Your task to perform on an android device: set default search engine in the chrome app Image 0: 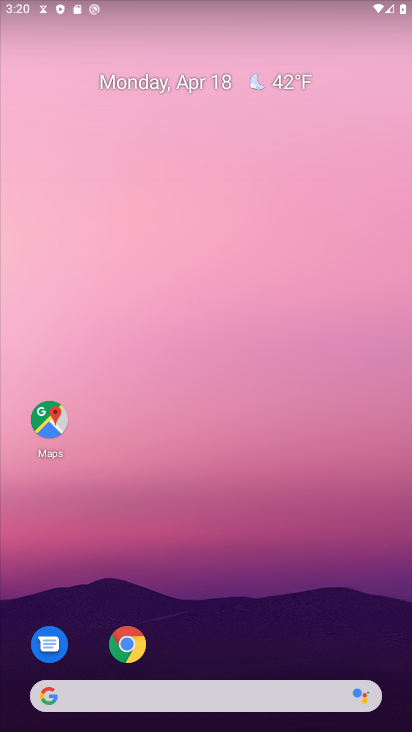
Step 0: click (127, 640)
Your task to perform on an android device: set default search engine in the chrome app Image 1: 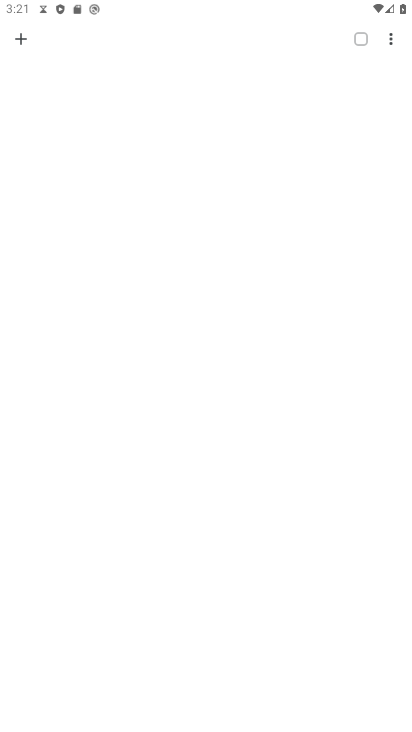
Step 1: press home button
Your task to perform on an android device: set default search engine in the chrome app Image 2: 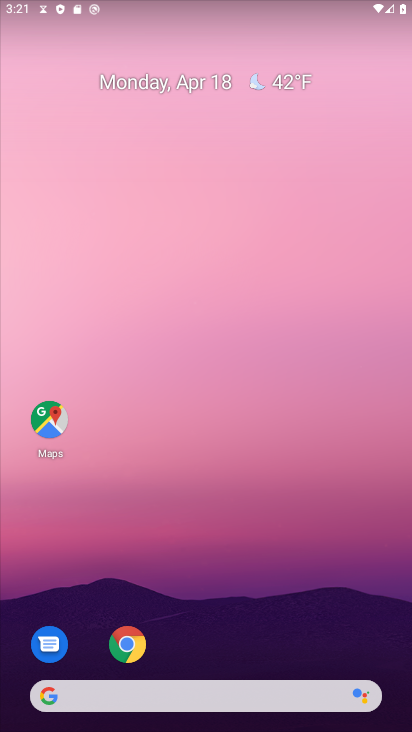
Step 2: click (120, 646)
Your task to perform on an android device: set default search engine in the chrome app Image 3: 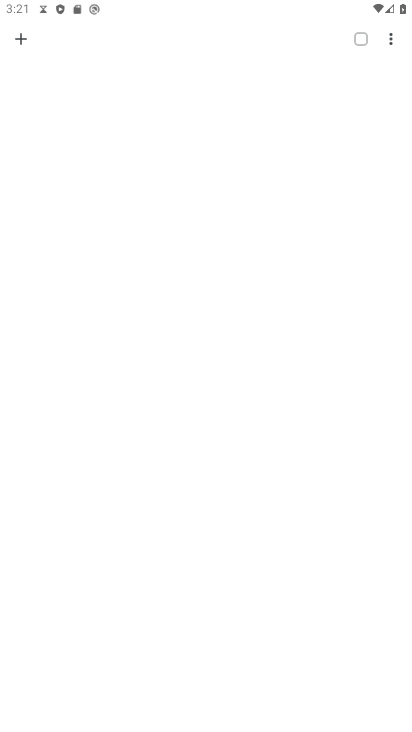
Step 3: click (390, 39)
Your task to perform on an android device: set default search engine in the chrome app Image 4: 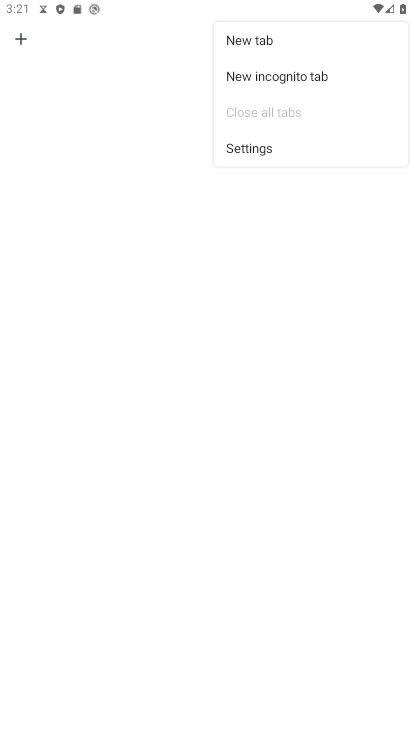
Step 4: click (245, 143)
Your task to perform on an android device: set default search engine in the chrome app Image 5: 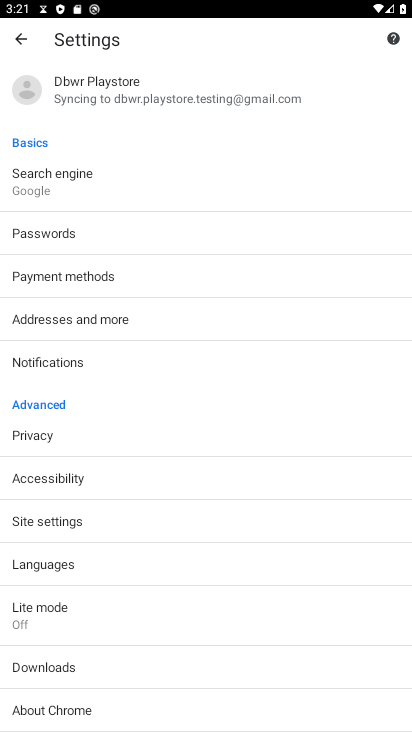
Step 5: click (70, 184)
Your task to perform on an android device: set default search engine in the chrome app Image 6: 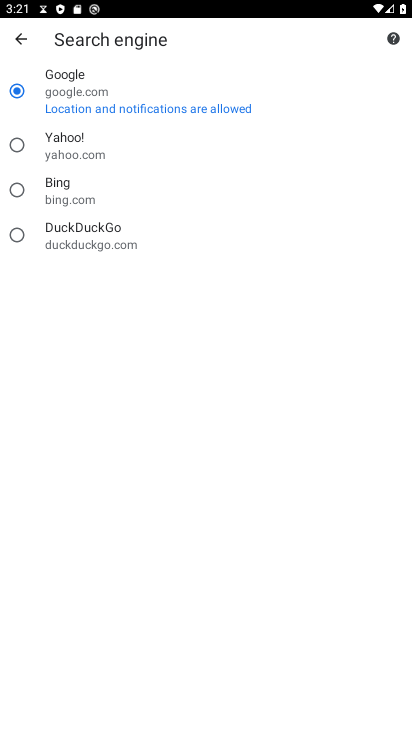
Step 6: click (20, 140)
Your task to perform on an android device: set default search engine in the chrome app Image 7: 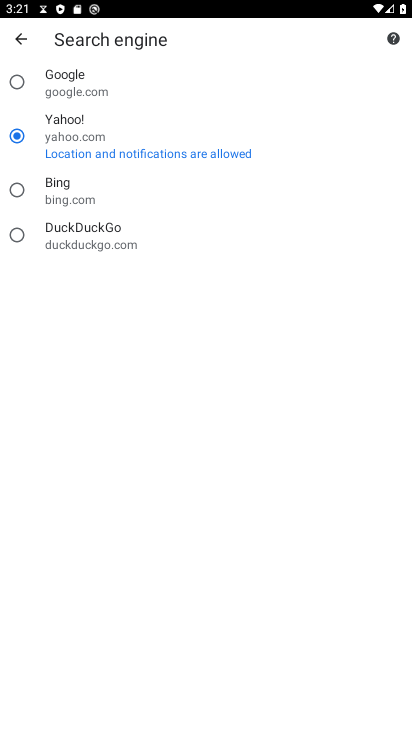
Step 7: task complete